Your task to perform on an android device: Open maps Image 0: 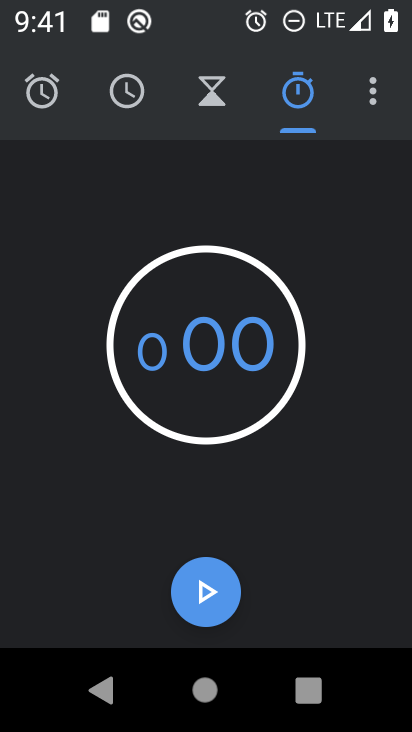
Step 0: press home button
Your task to perform on an android device: Open maps Image 1: 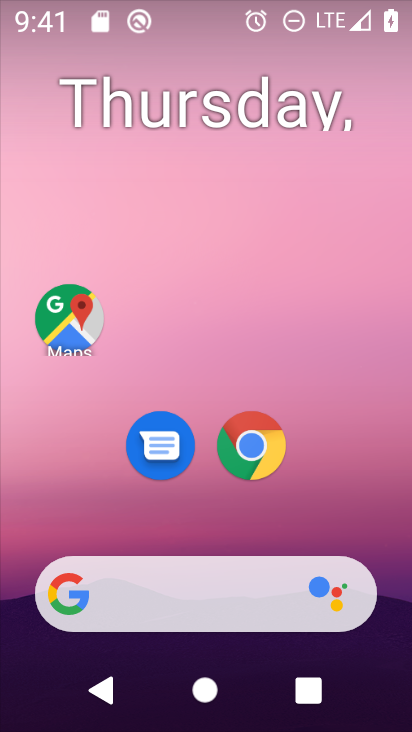
Step 1: click (399, 667)
Your task to perform on an android device: Open maps Image 2: 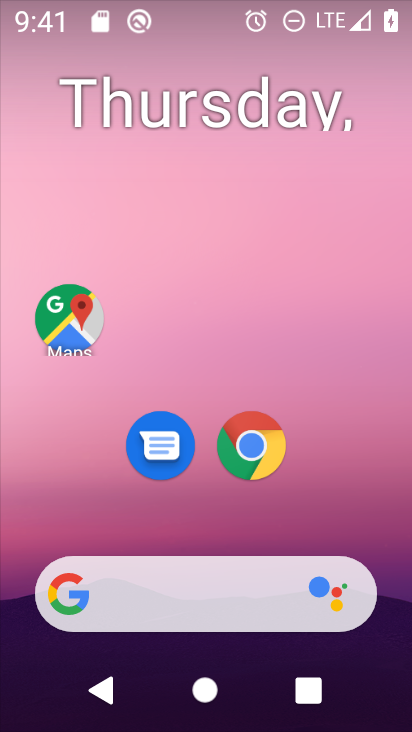
Step 2: drag from (403, 596) to (397, 344)
Your task to perform on an android device: Open maps Image 3: 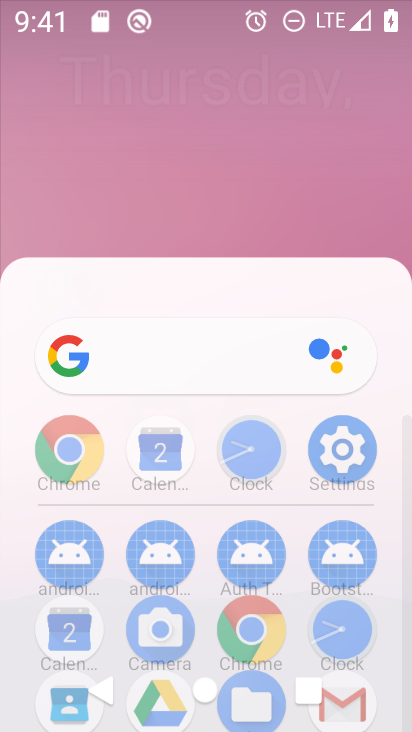
Step 3: drag from (343, 113) to (320, 65)
Your task to perform on an android device: Open maps Image 4: 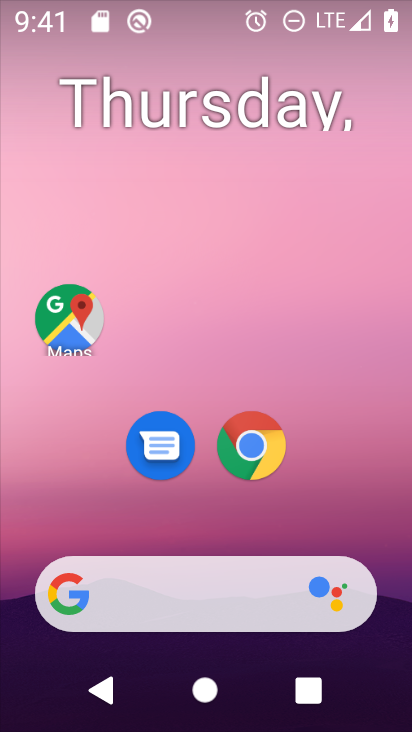
Step 4: drag from (387, 628) to (317, 33)
Your task to perform on an android device: Open maps Image 5: 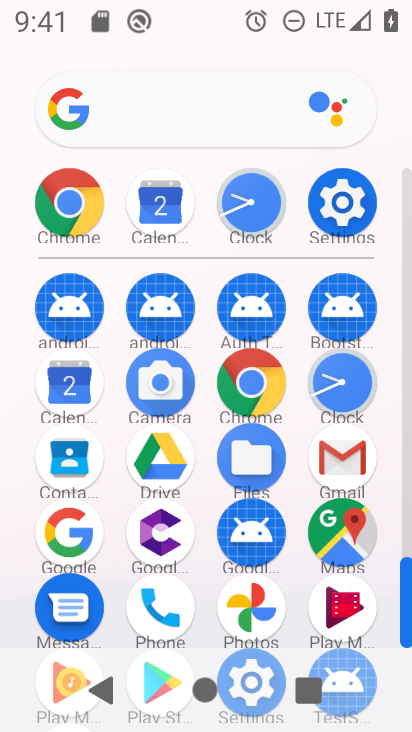
Step 5: click (344, 549)
Your task to perform on an android device: Open maps Image 6: 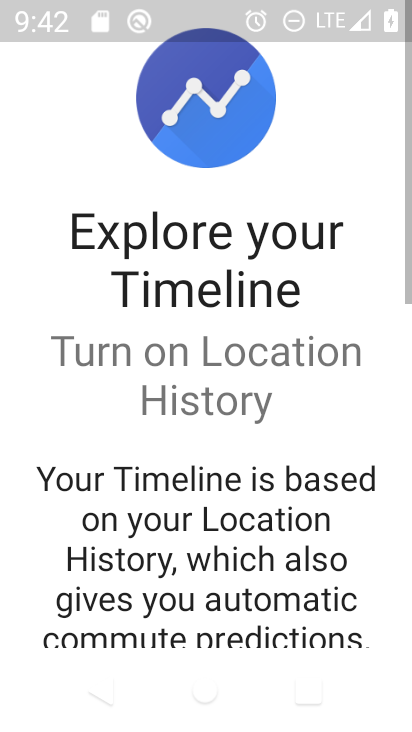
Step 6: task complete